Your task to perform on an android device: open app "Facebook" (install if not already installed) and go to login screen Image 0: 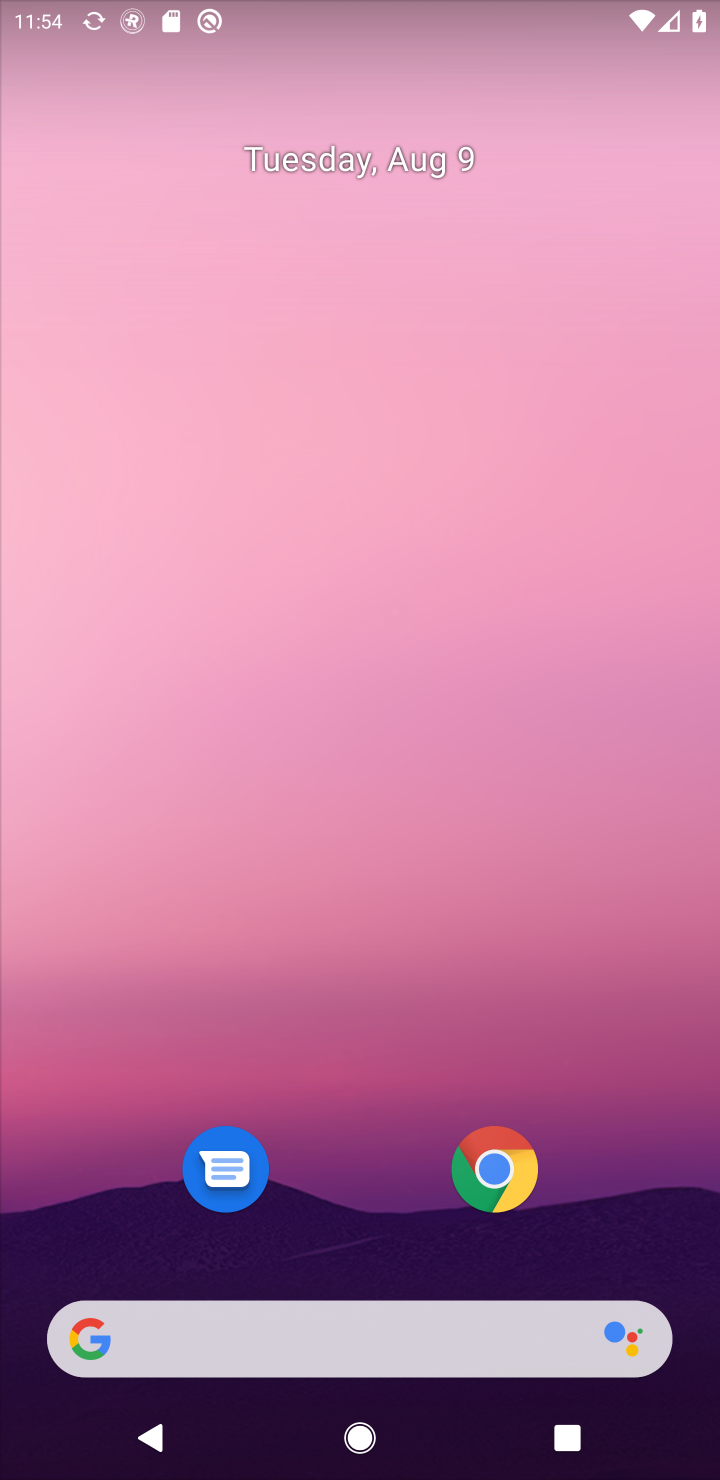
Step 0: press home button
Your task to perform on an android device: open app "Facebook" (install if not already installed) and go to login screen Image 1: 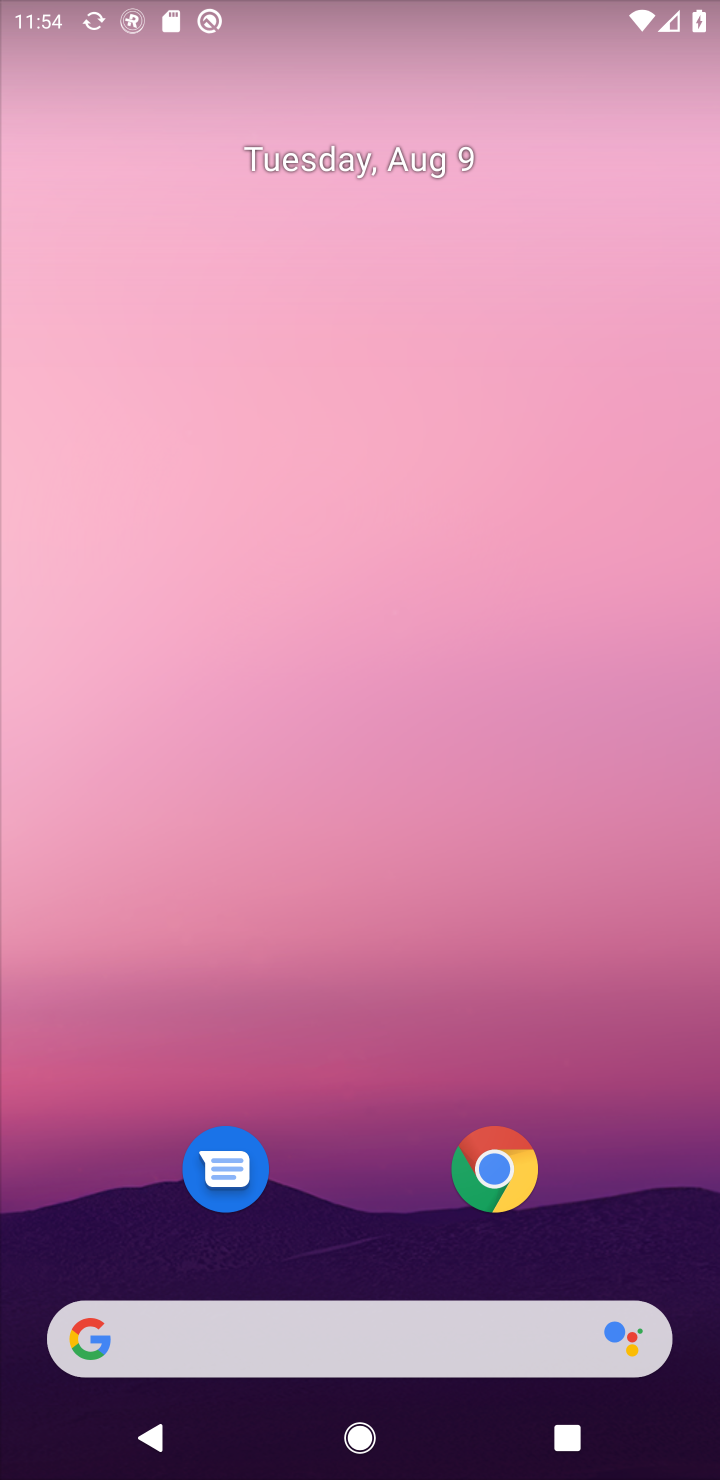
Step 1: drag from (622, 1179) to (606, 98)
Your task to perform on an android device: open app "Facebook" (install if not already installed) and go to login screen Image 2: 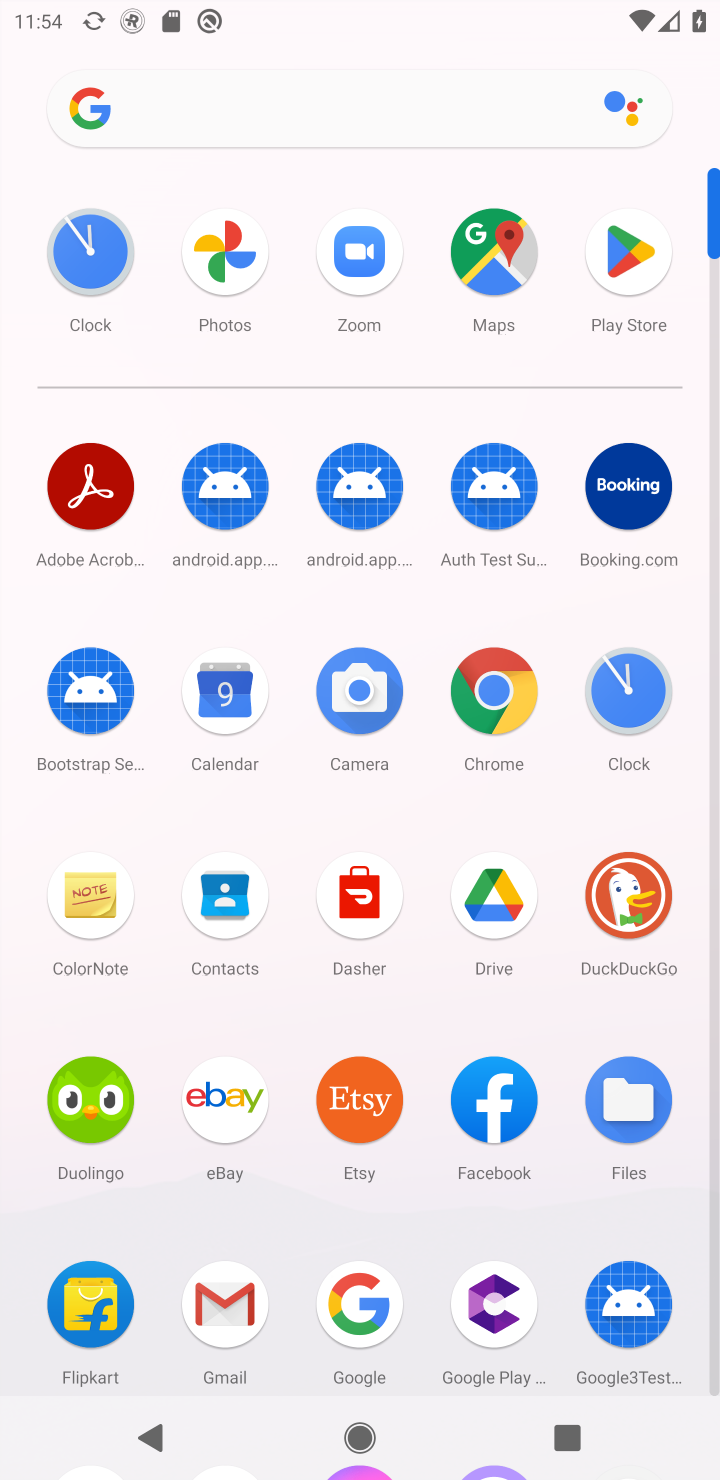
Step 2: click (641, 262)
Your task to perform on an android device: open app "Facebook" (install if not already installed) and go to login screen Image 3: 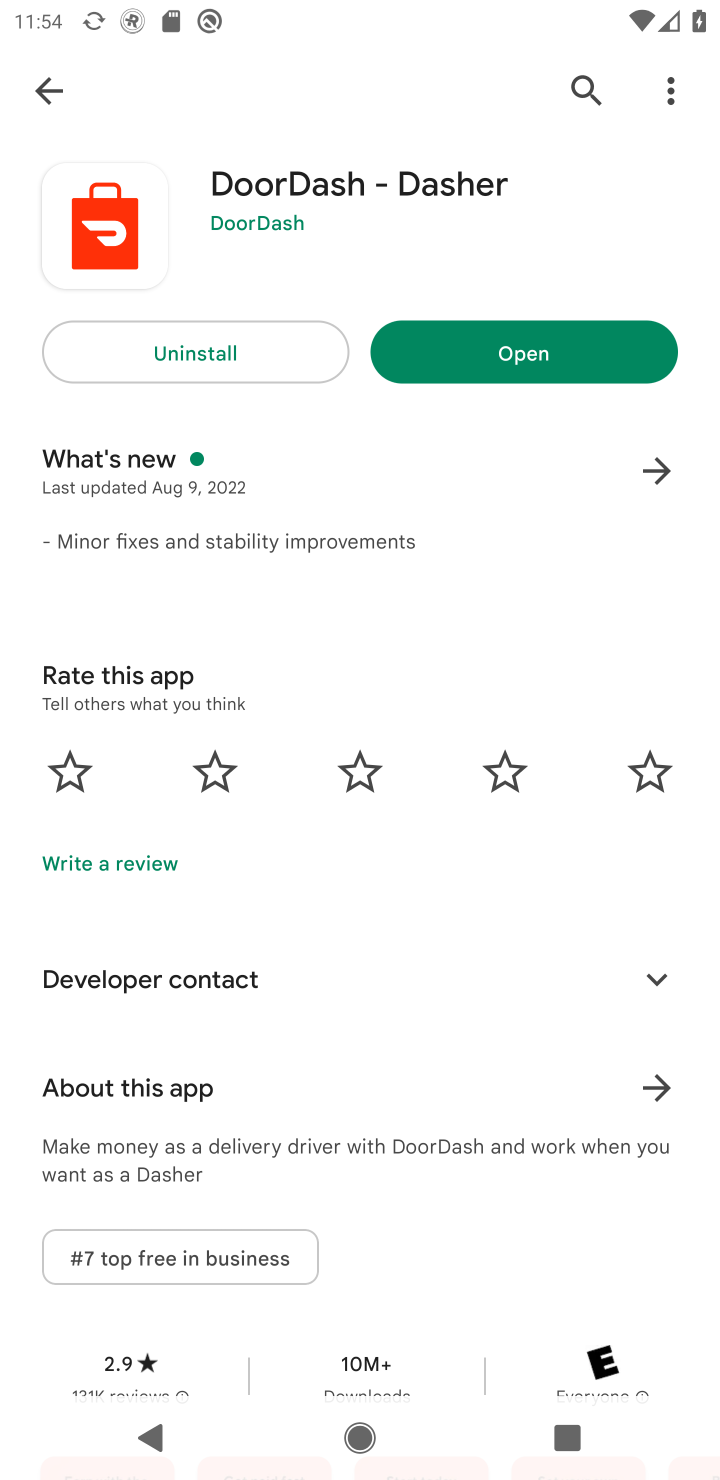
Step 3: click (586, 95)
Your task to perform on an android device: open app "Facebook" (install if not already installed) and go to login screen Image 4: 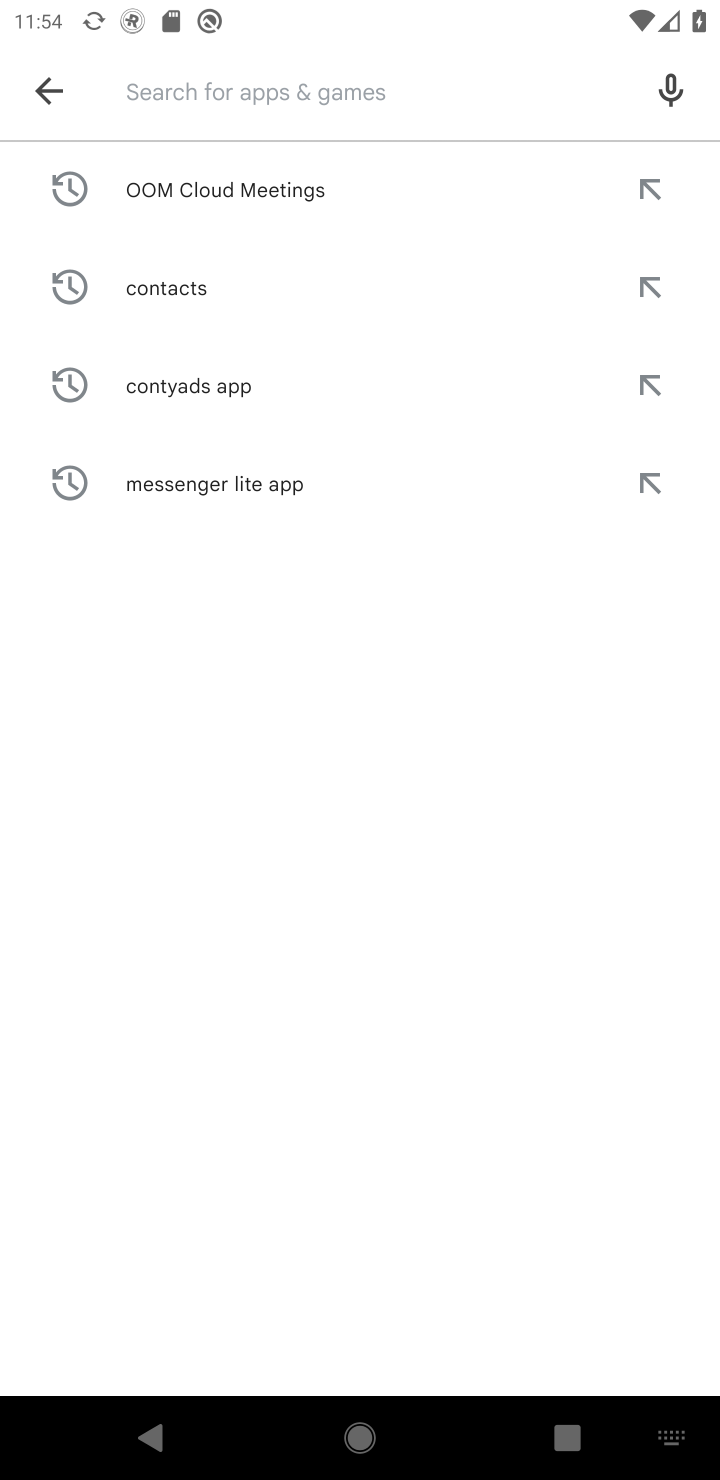
Step 4: press enter
Your task to perform on an android device: open app "Facebook" (install if not already installed) and go to login screen Image 5: 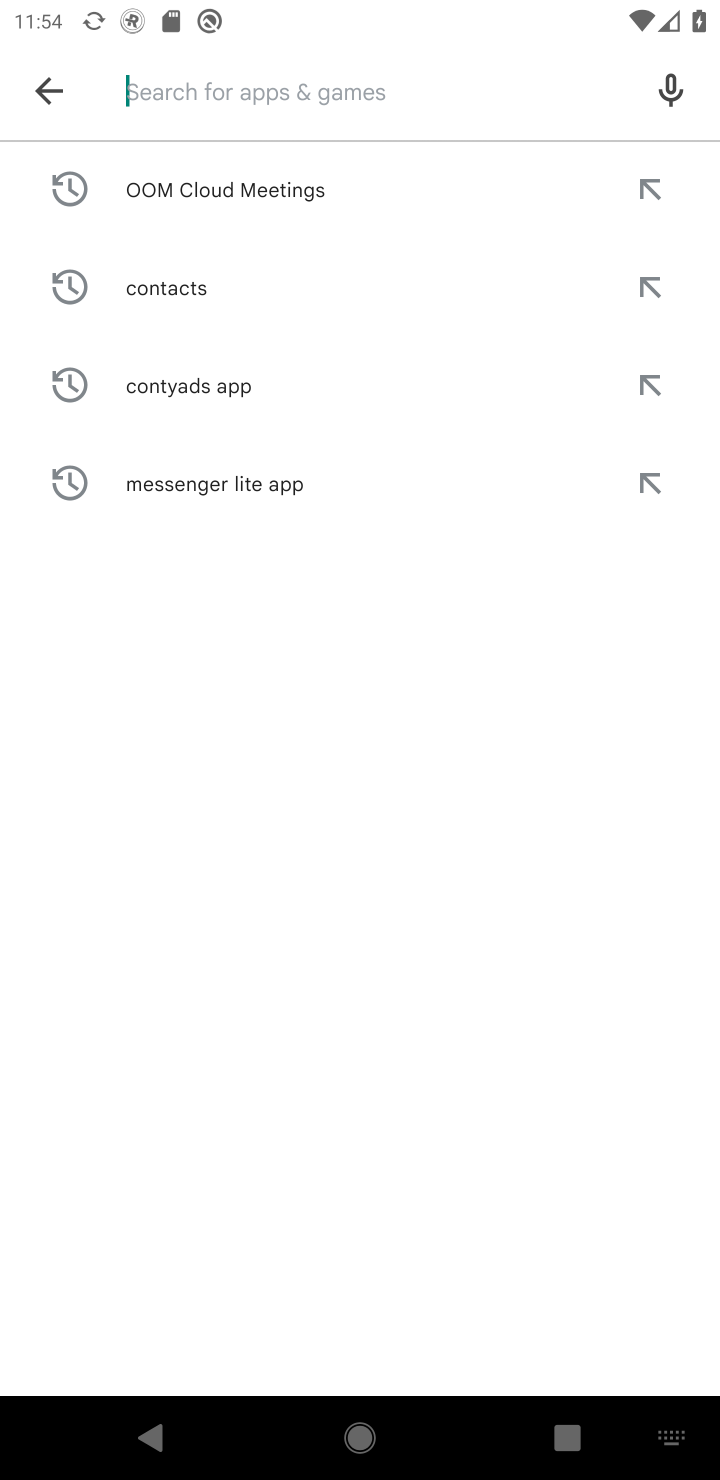
Step 5: type "facebook"
Your task to perform on an android device: open app "Facebook" (install if not already installed) and go to login screen Image 6: 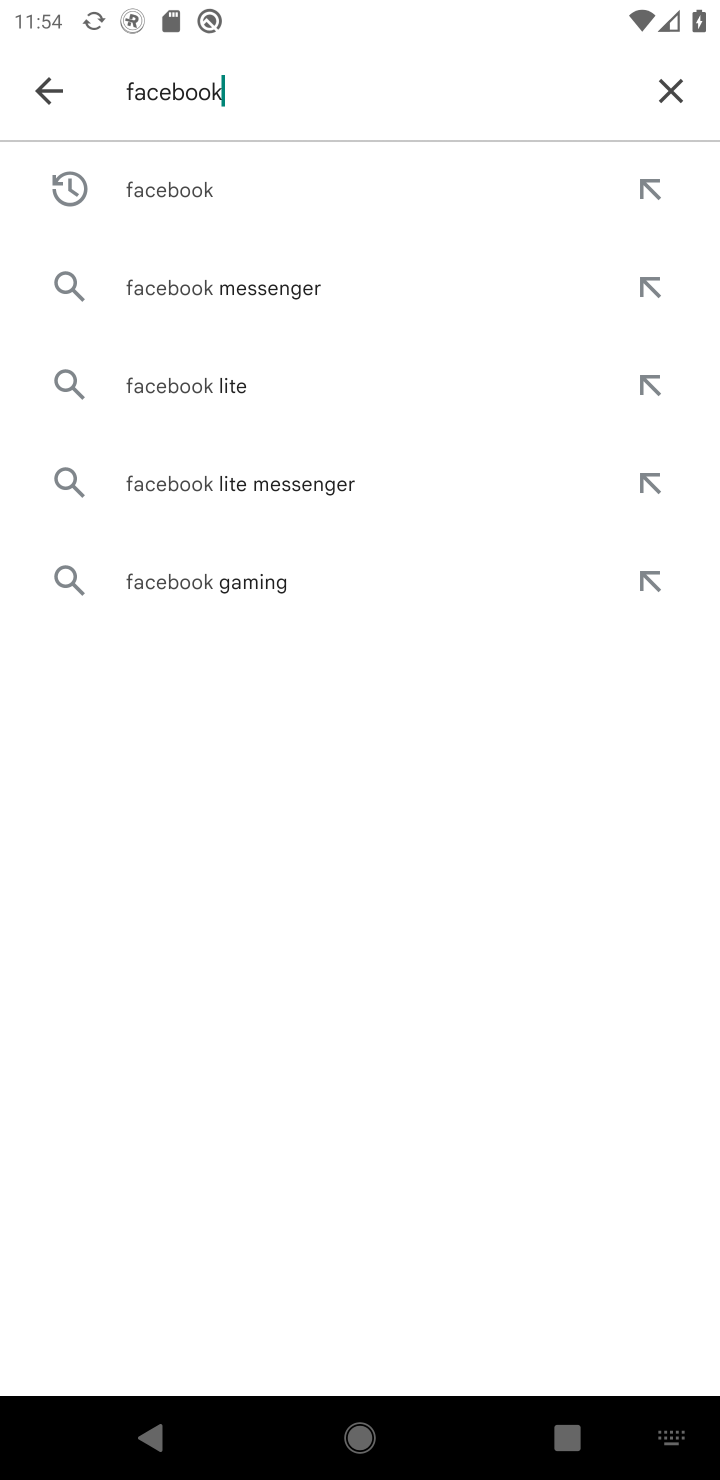
Step 6: click (222, 198)
Your task to perform on an android device: open app "Facebook" (install if not already installed) and go to login screen Image 7: 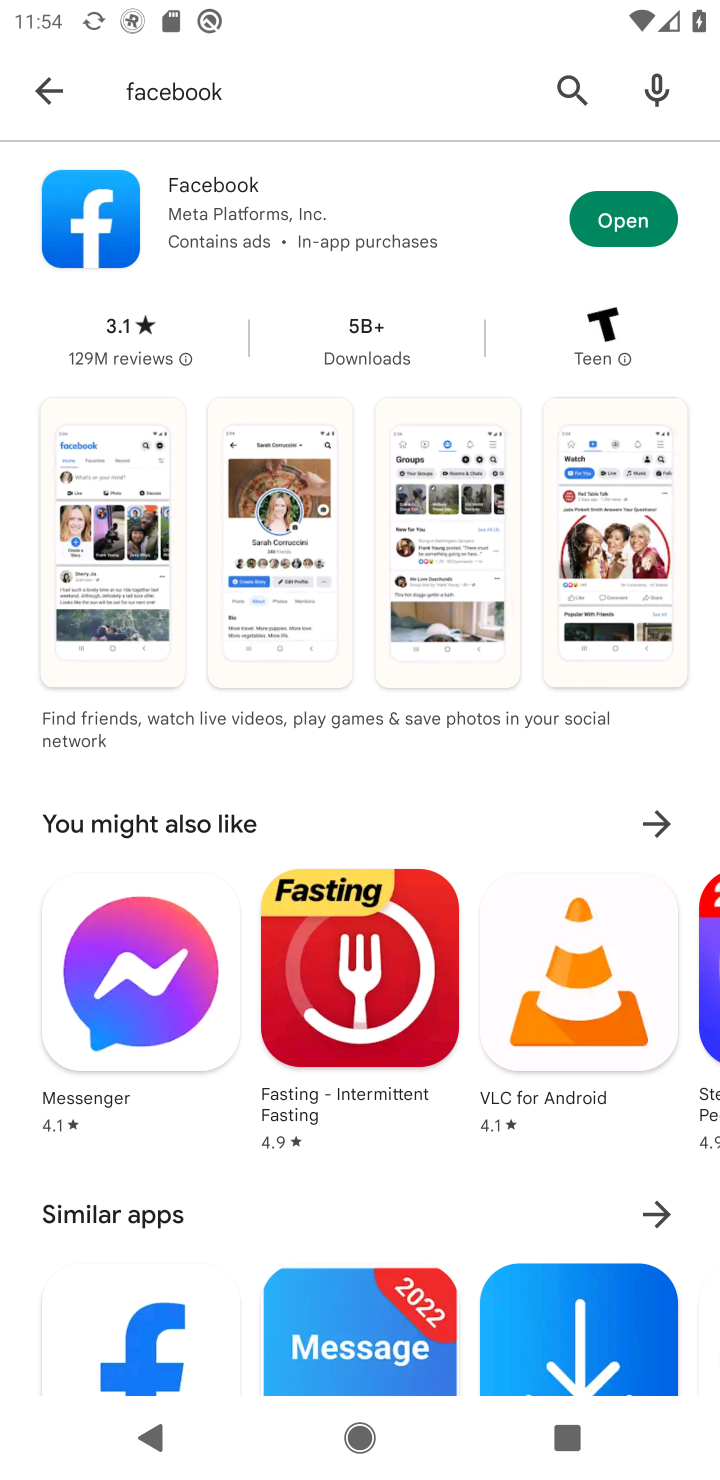
Step 7: click (631, 218)
Your task to perform on an android device: open app "Facebook" (install if not already installed) and go to login screen Image 8: 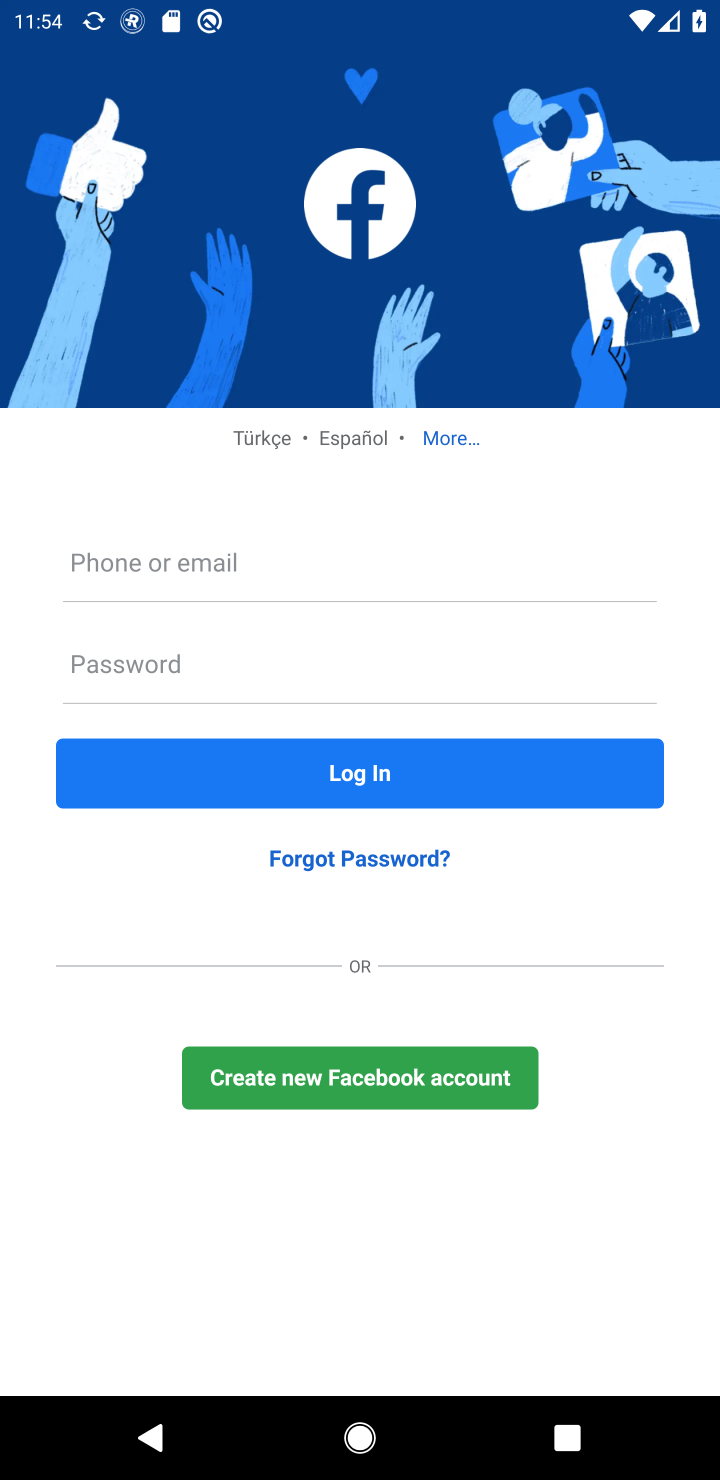
Step 8: task complete